Your task to perform on an android device: Go to location settings Image 0: 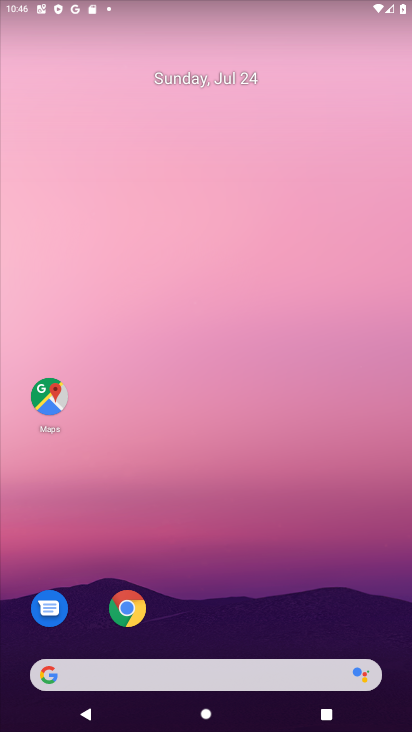
Step 0: press home button
Your task to perform on an android device: Go to location settings Image 1: 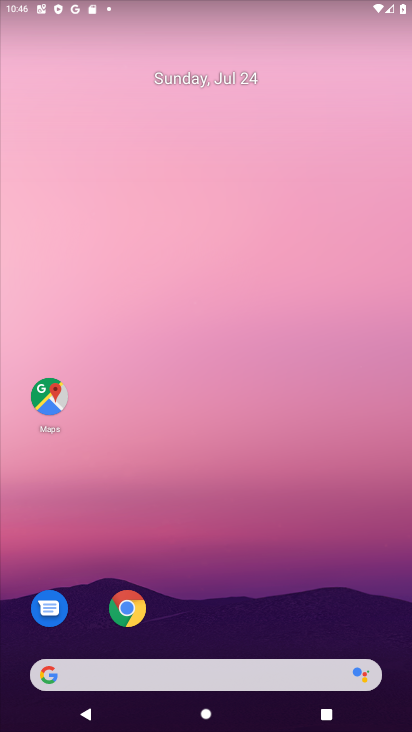
Step 1: drag from (230, 639) to (247, 102)
Your task to perform on an android device: Go to location settings Image 2: 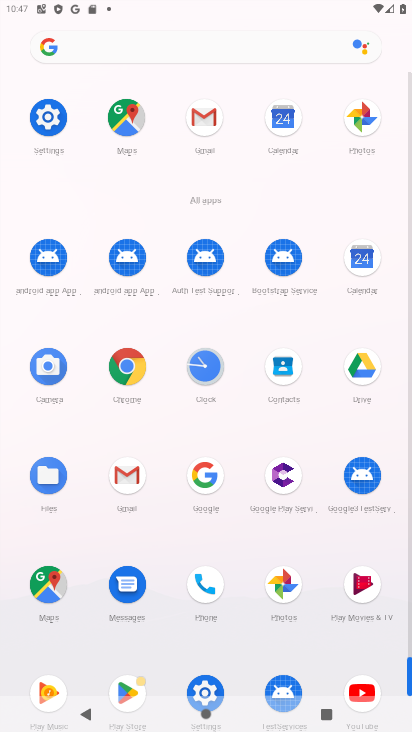
Step 2: click (48, 113)
Your task to perform on an android device: Go to location settings Image 3: 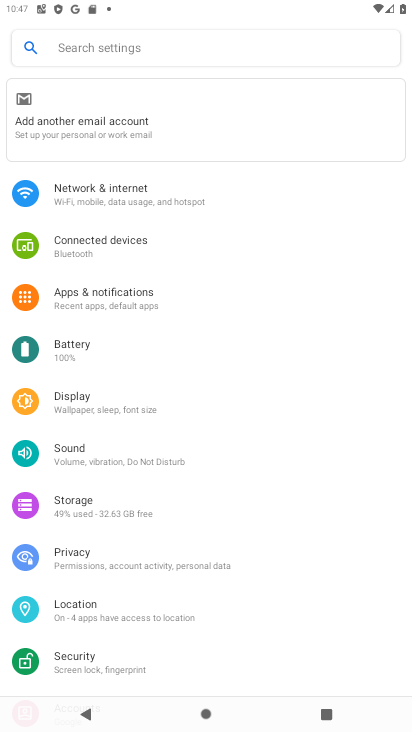
Step 3: click (110, 604)
Your task to perform on an android device: Go to location settings Image 4: 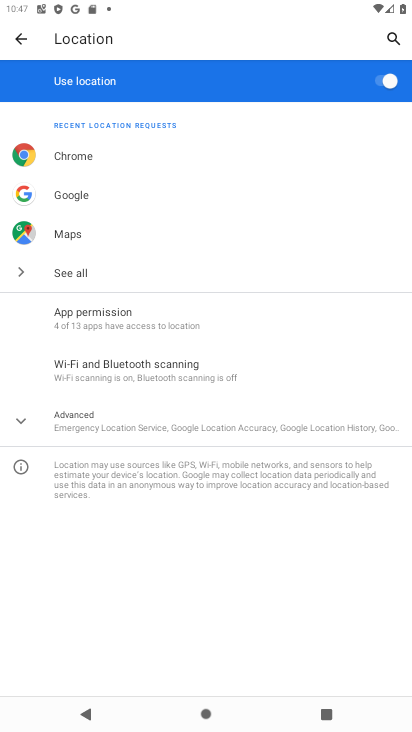
Step 4: click (25, 415)
Your task to perform on an android device: Go to location settings Image 5: 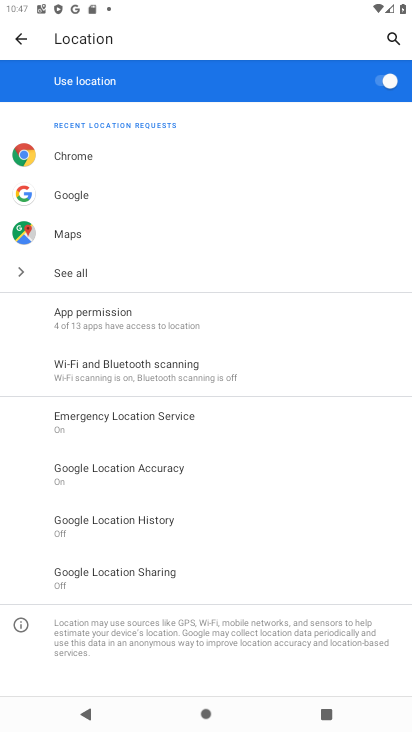
Step 5: task complete